Your task to perform on an android device: turn on airplane mode Image 0: 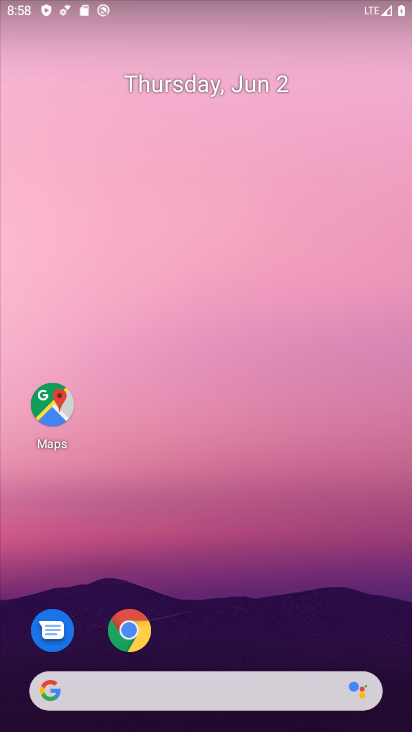
Step 0: drag from (211, 635) to (304, 0)
Your task to perform on an android device: turn on airplane mode Image 1: 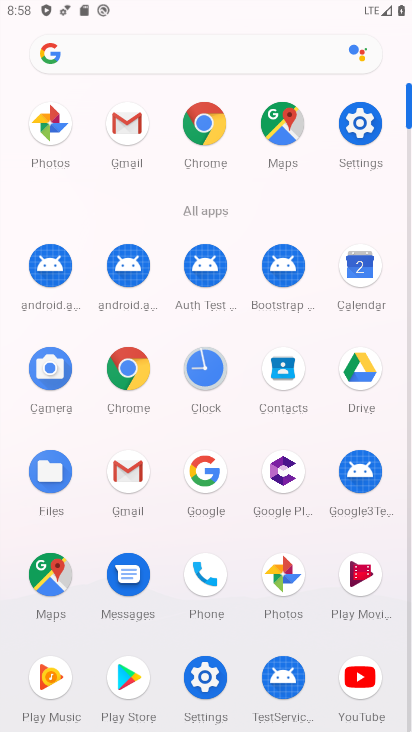
Step 1: click (361, 124)
Your task to perform on an android device: turn on airplane mode Image 2: 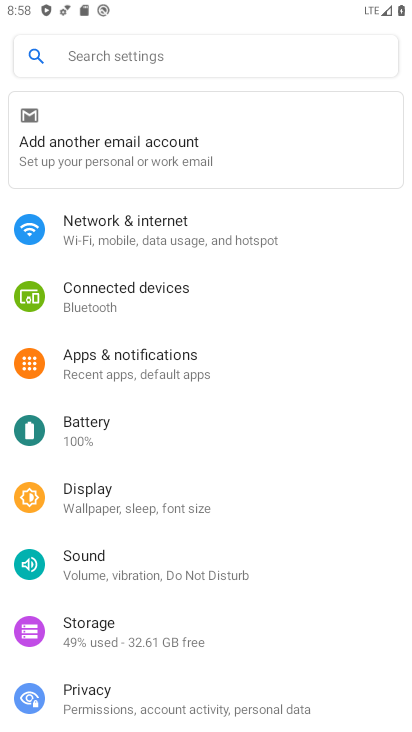
Step 2: click (160, 238)
Your task to perform on an android device: turn on airplane mode Image 3: 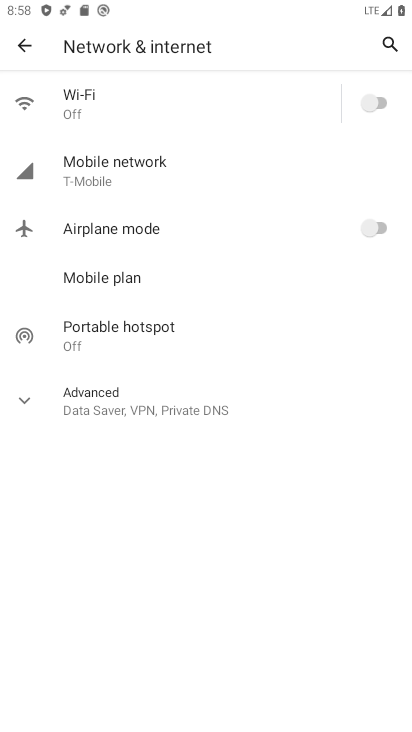
Step 3: click (377, 232)
Your task to perform on an android device: turn on airplane mode Image 4: 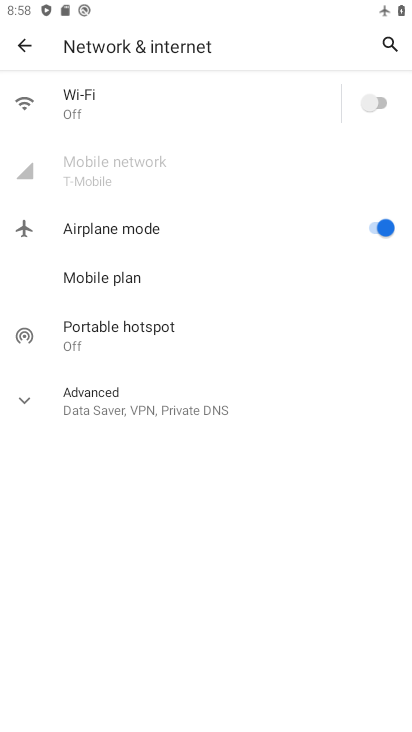
Step 4: task complete